Your task to perform on an android device: Show me productivity apps on the Play Store Image 0: 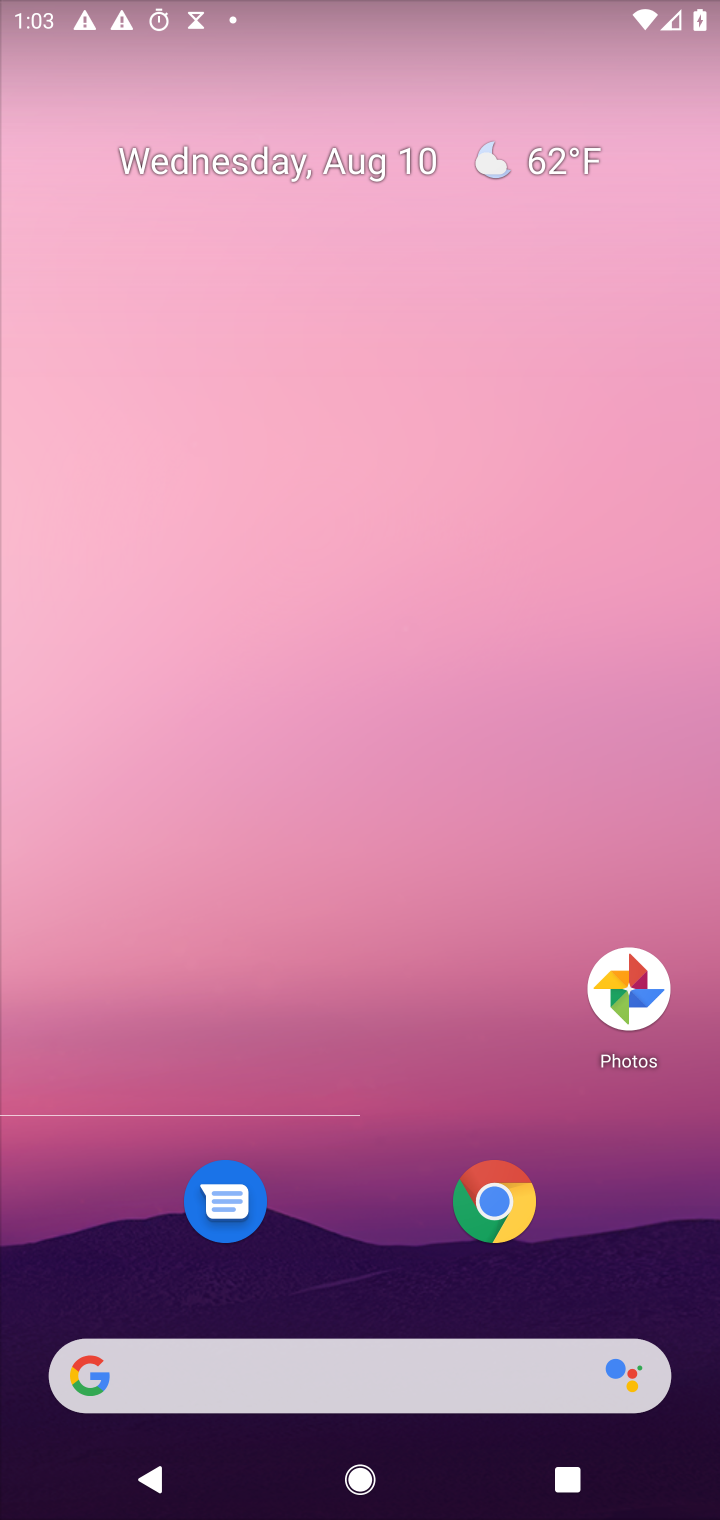
Step 0: press home button
Your task to perform on an android device: Show me productivity apps on the Play Store Image 1: 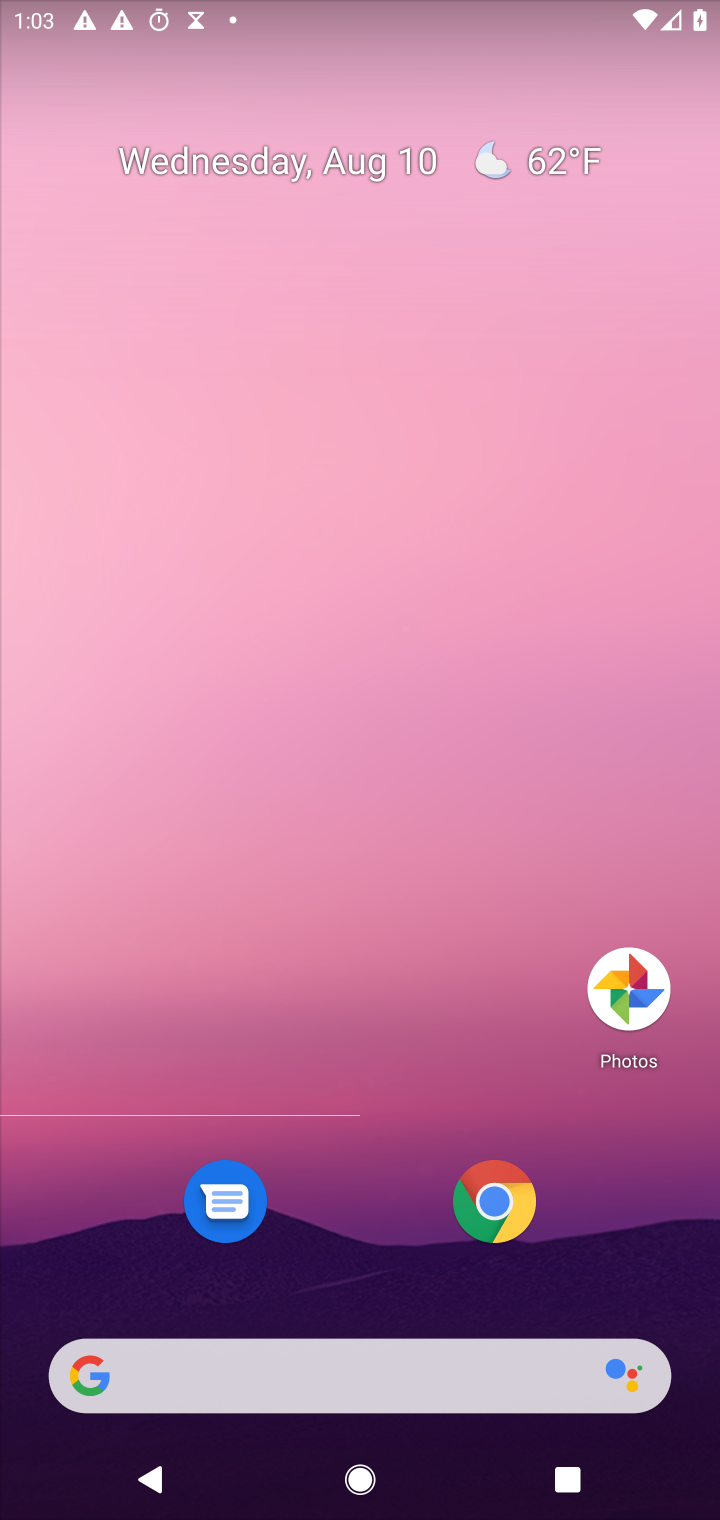
Step 1: drag from (364, 1157) to (337, 347)
Your task to perform on an android device: Show me productivity apps on the Play Store Image 2: 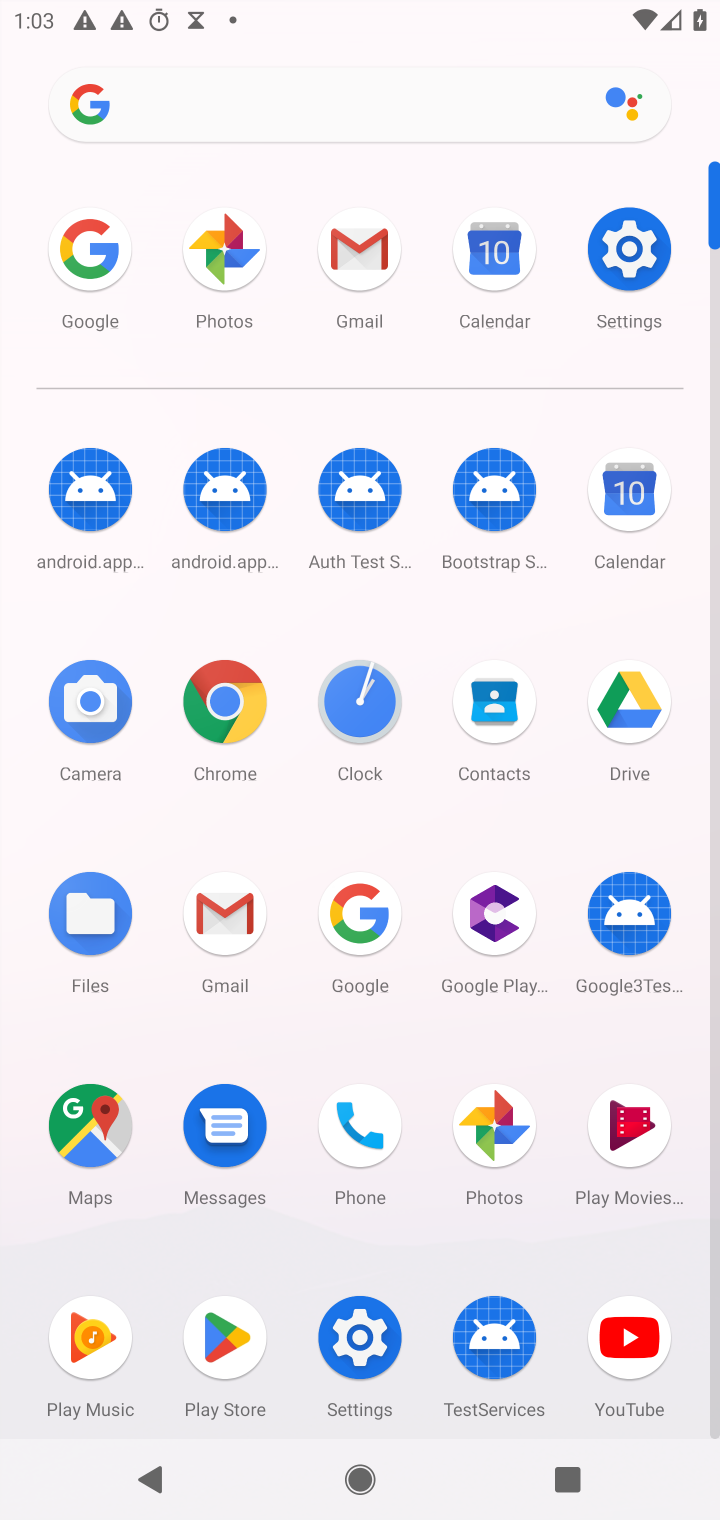
Step 2: click (220, 1338)
Your task to perform on an android device: Show me productivity apps on the Play Store Image 3: 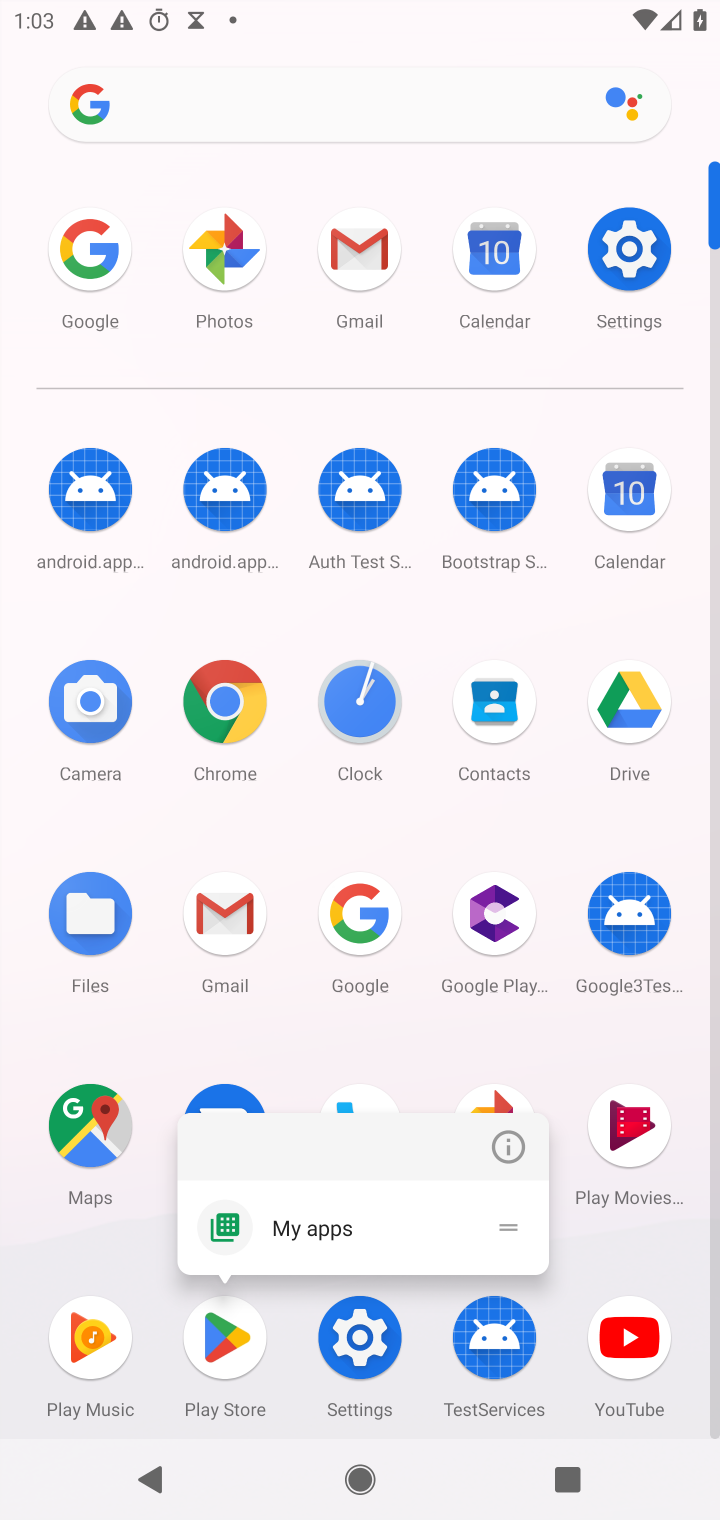
Step 3: click (238, 1337)
Your task to perform on an android device: Show me productivity apps on the Play Store Image 4: 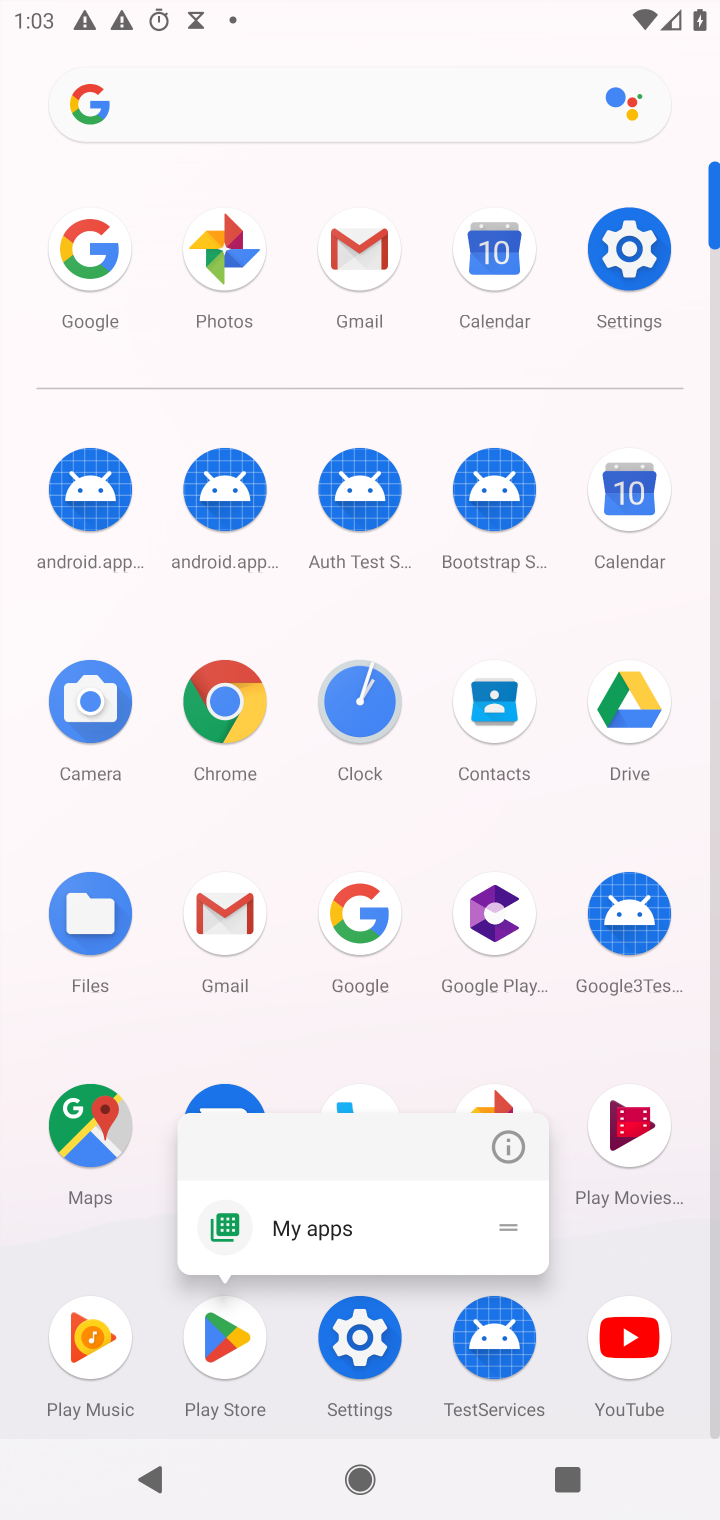
Step 4: click (222, 1352)
Your task to perform on an android device: Show me productivity apps on the Play Store Image 5: 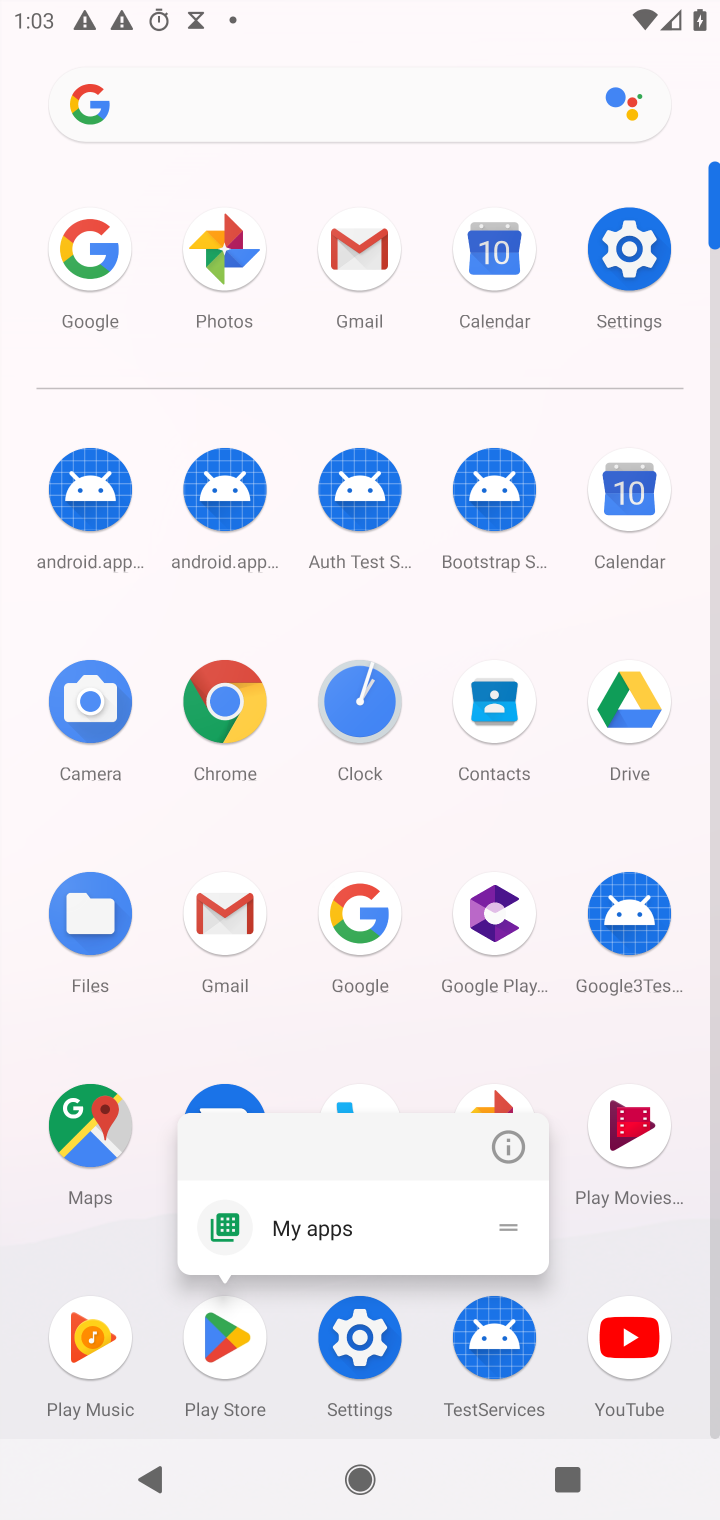
Step 5: click (222, 1352)
Your task to perform on an android device: Show me productivity apps on the Play Store Image 6: 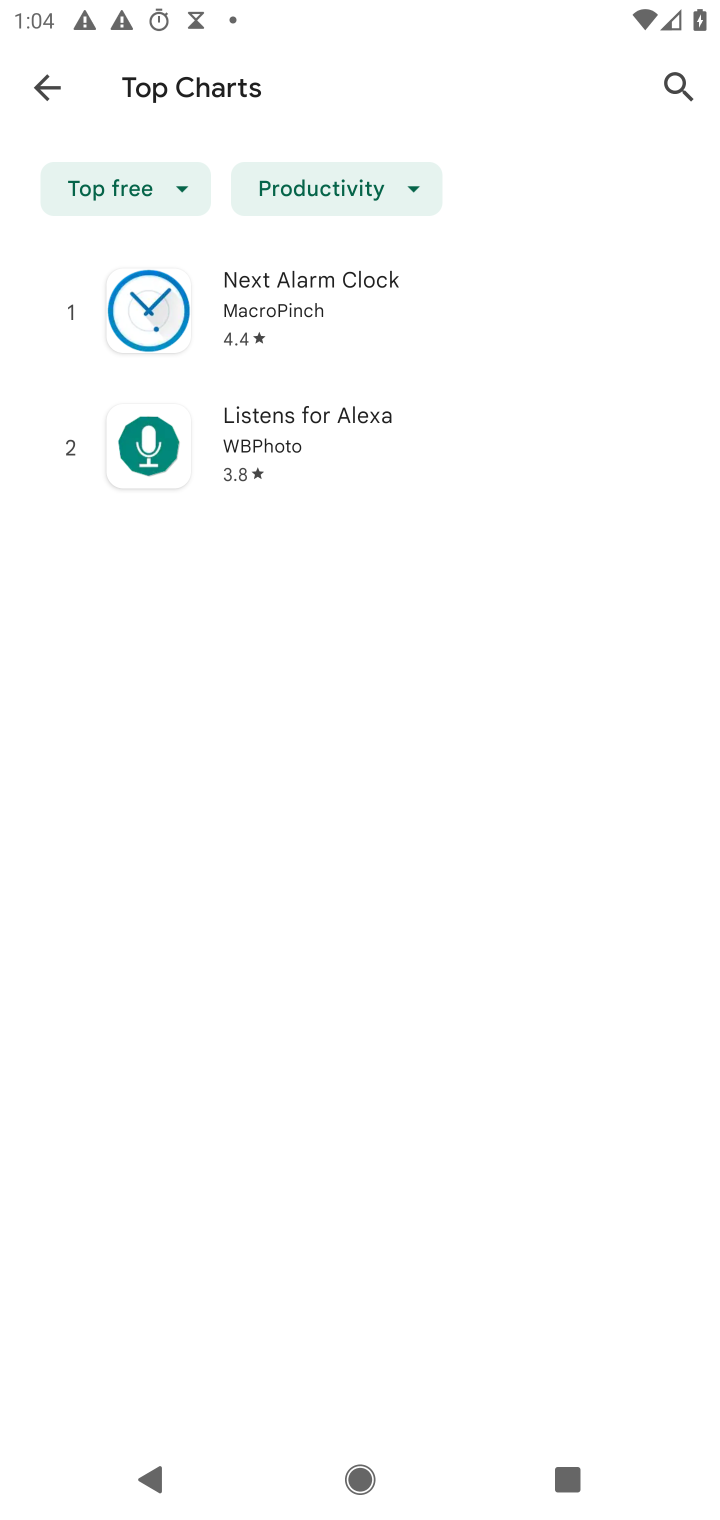
Step 6: press back button
Your task to perform on an android device: Show me productivity apps on the Play Store Image 7: 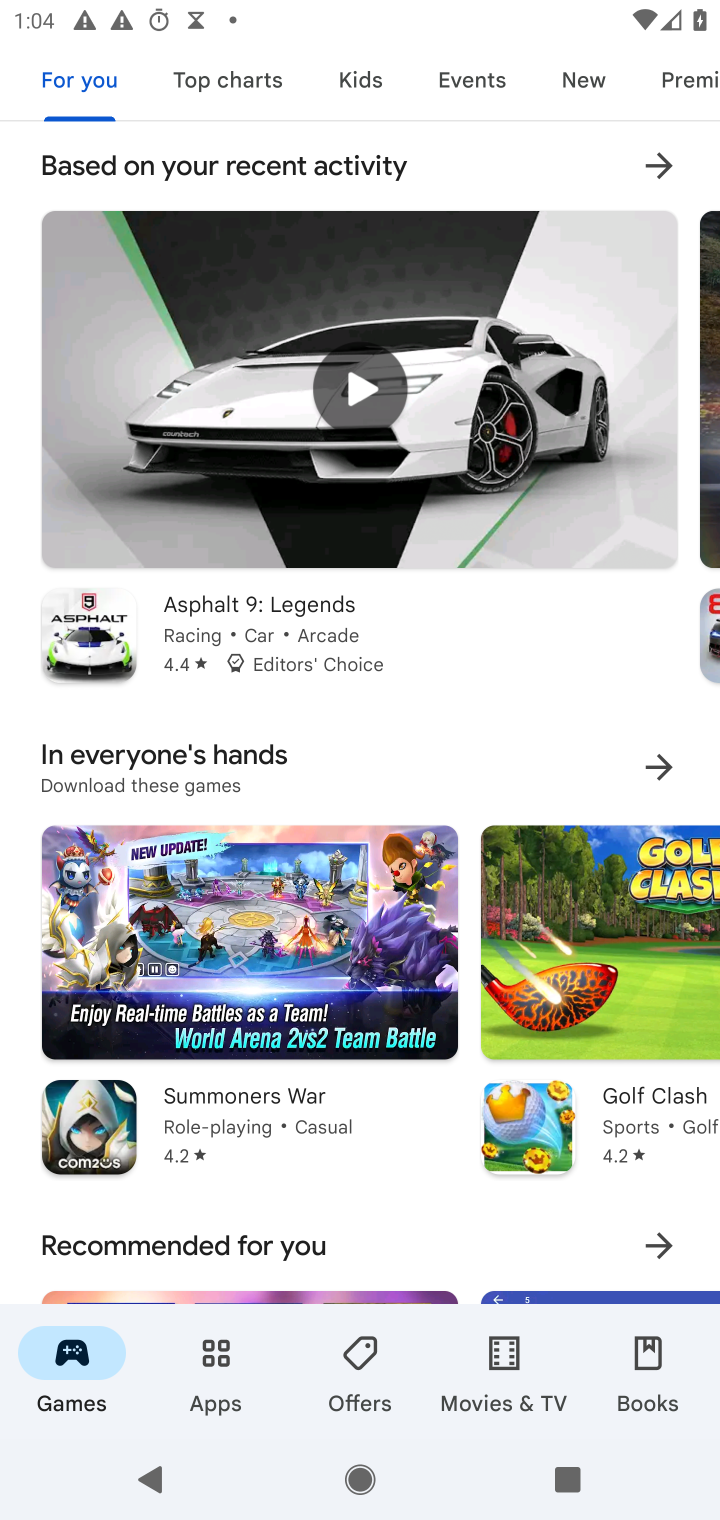
Step 7: click (216, 1357)
Your task to perform on an android device: Show me productivity apps on the Play Store Image 8: 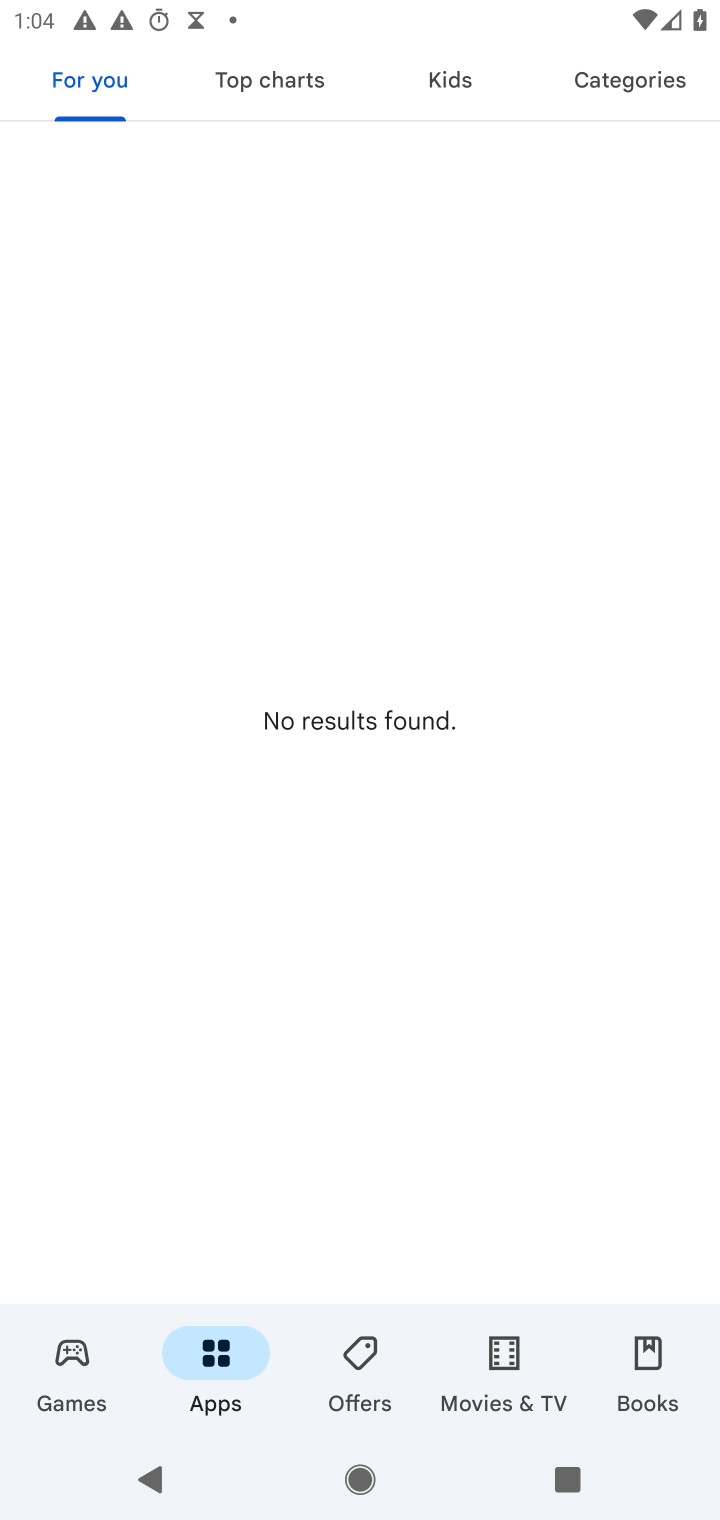
Step 8: click (632, 76)
Your task to perform on an android device: Show me productivity apps on the Play Store Image 9: 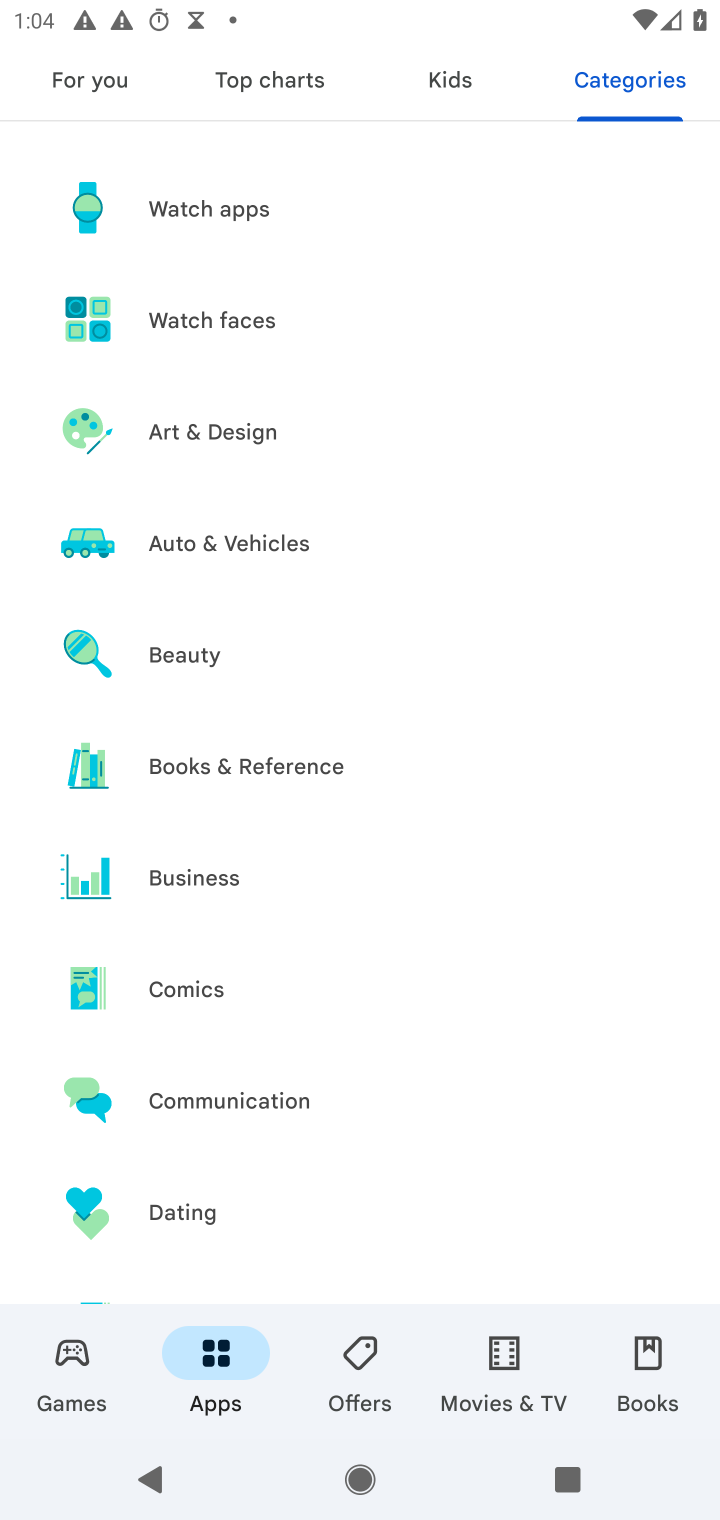
Step 9: drag from (419, 1169) to (257, 0)
Your task to perform on an android device: Show me productivity apps on the Play Store Image 10: 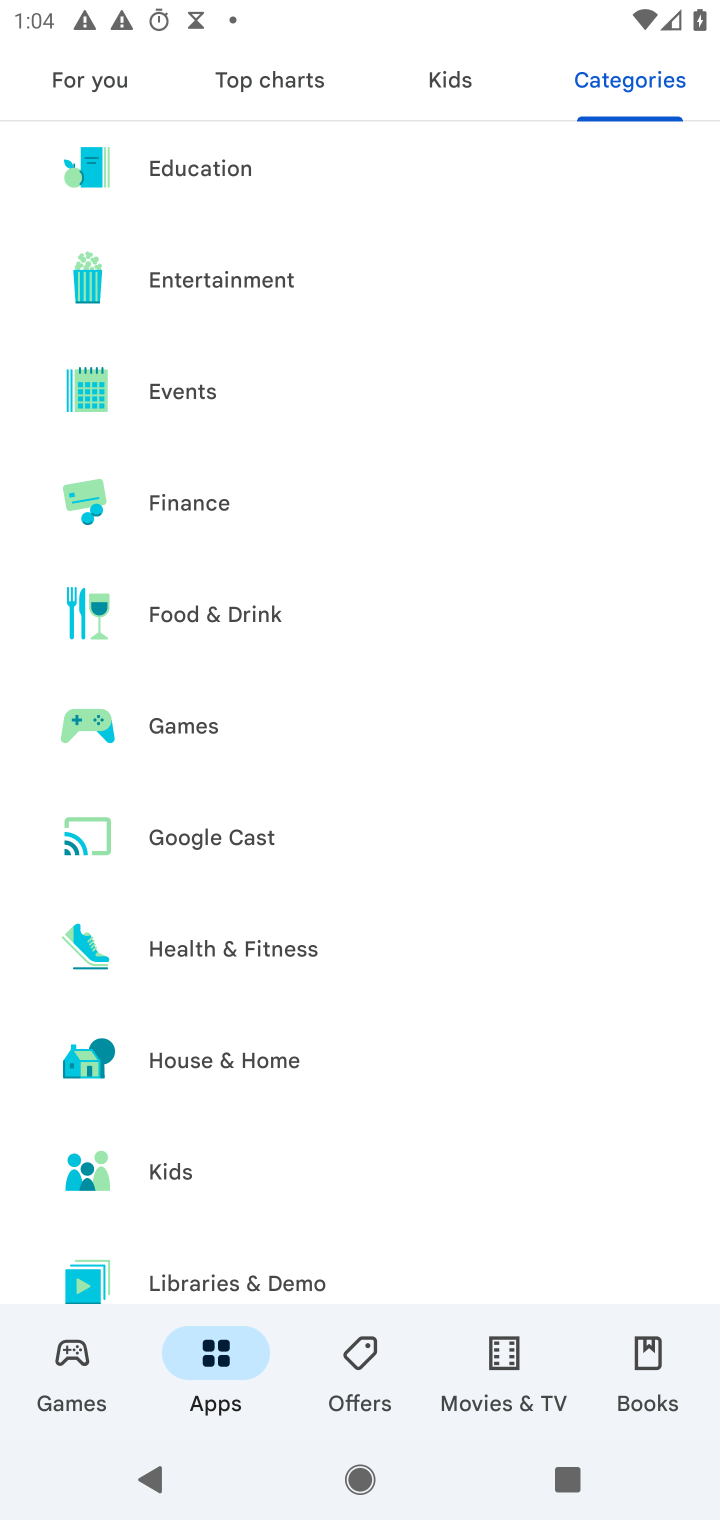
Step 10: drag from (355, 1205) to (260, 99)
Your task to perform on an android device: Show me productivity apps on the Play Store Image 11: 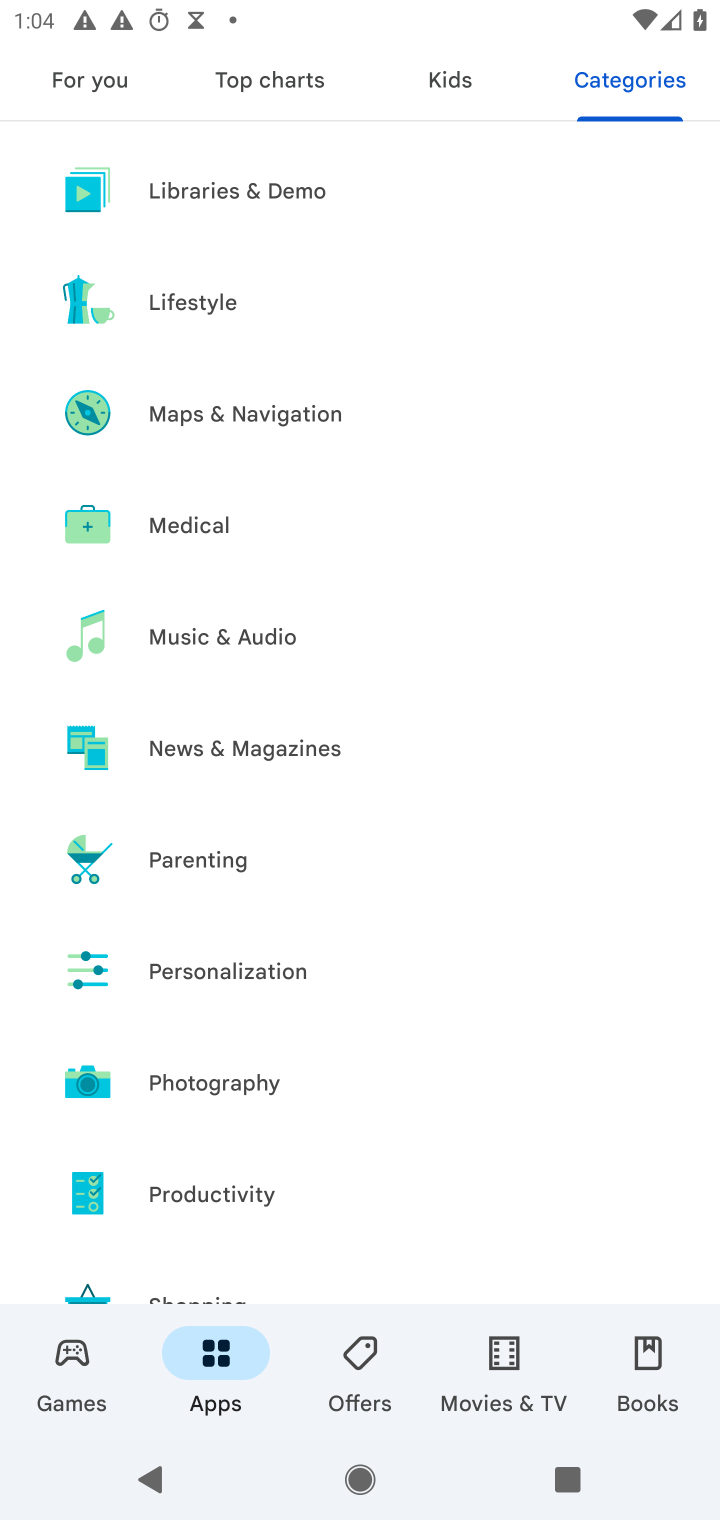
Step 11: click (225, 1193)
Your task to perform on an android device: Show me productivity apps on the Play Store Image 12: 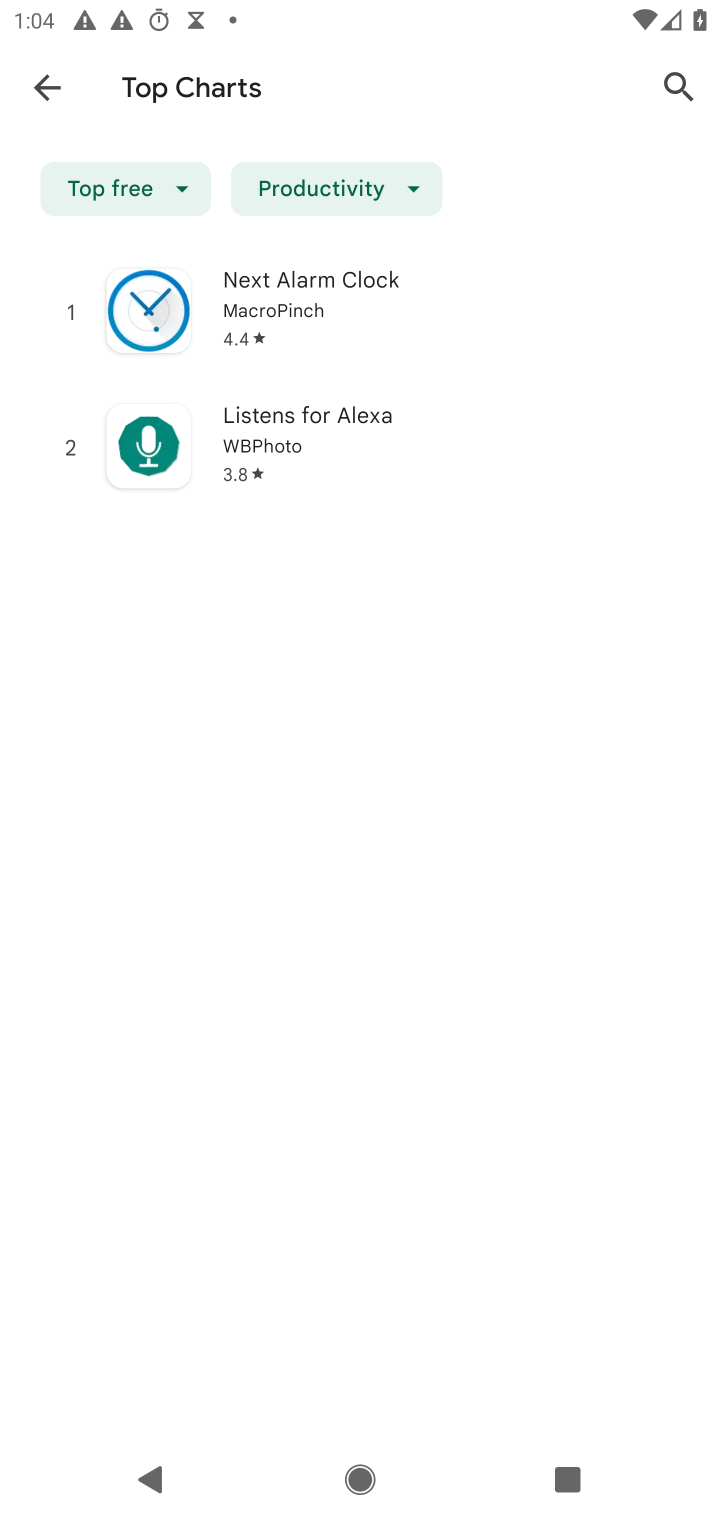
Step 12: task complete